Your task to perform on an android device: turn on javascript in the chrome app Image 0: 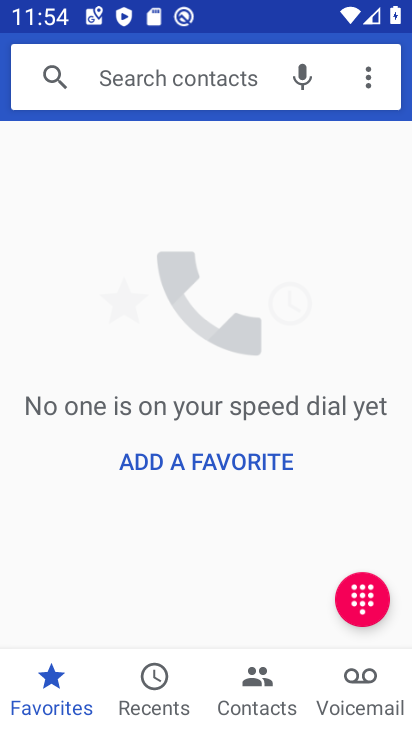
Step 0: press home button
Your task to perform on an android device: turn on javascript in the chrome app Image 1: 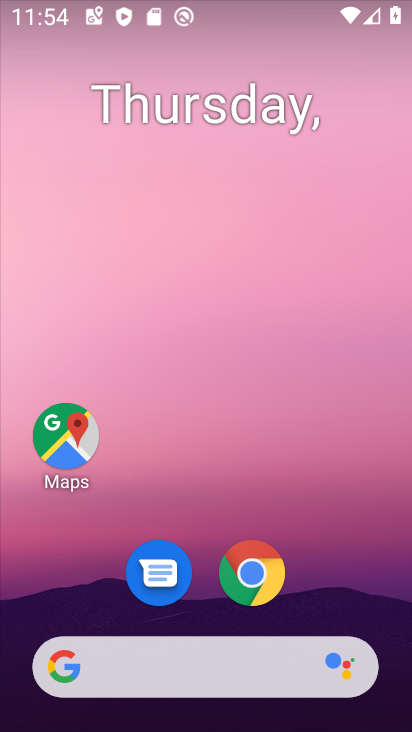
Step 1: click (258, 569)
Your task to perform on an android device: turn on javascript in the chrome app Image 2: 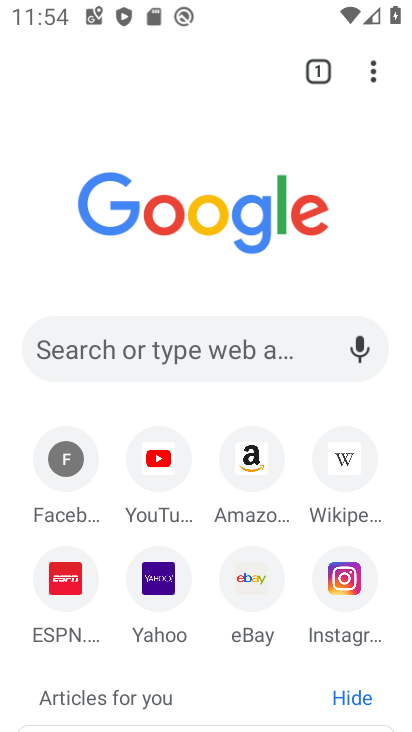
Step 2: click (360, 70)
Your task to perform on an android device: turn on javascript in the chrome app Image 3: 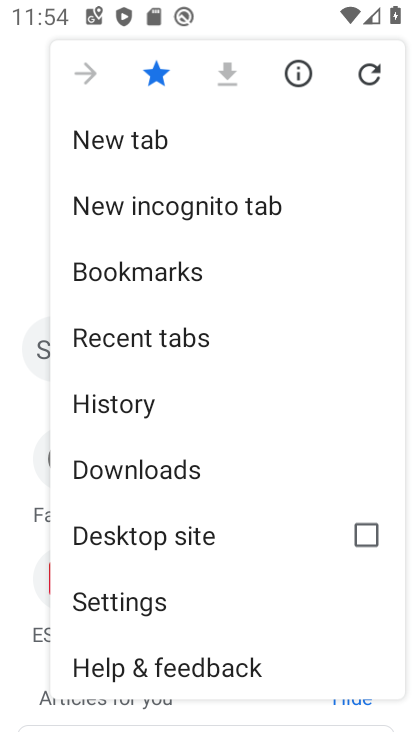
Step 3: click (198, 616)
Your task to perform on an android device: turn on javascript in the chrome app Image 4: 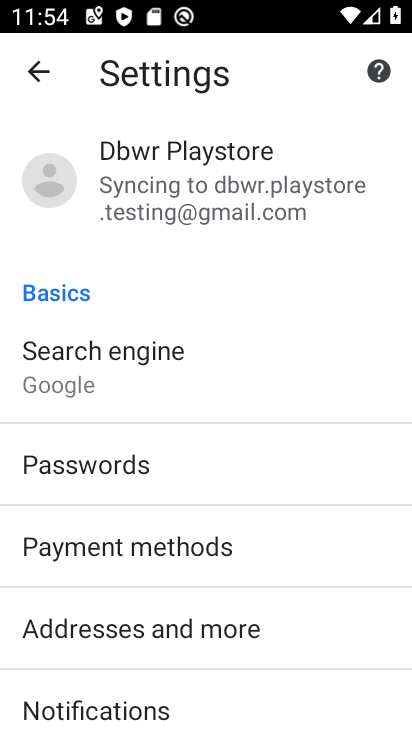
Step 4: drag from (165, 638) to (179, 117)
Your task to perform on an android device: turn on javascript in the chrome app Image 5: 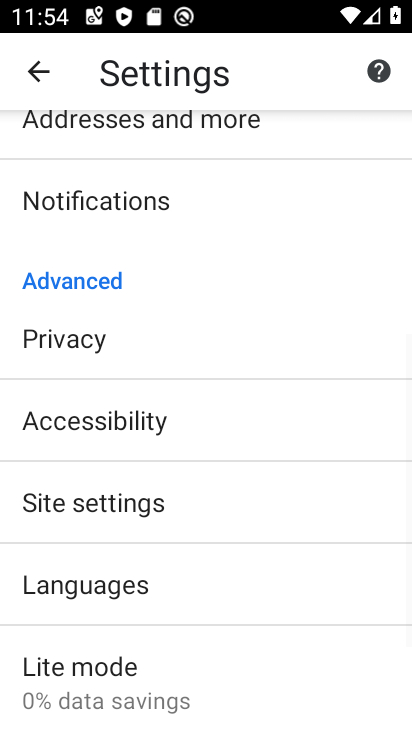
Step 5: click (116, 485)
Your task to perform on an android device: turn on javascript in the chrome app Image 6: 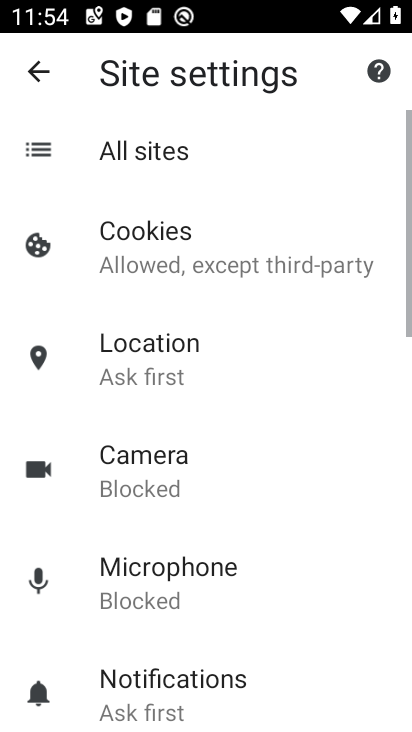
Step 6: drag from (233, 625) to (238, 252)
Your task to perform on an android device: turn on javascript in the chrome app Image 7: 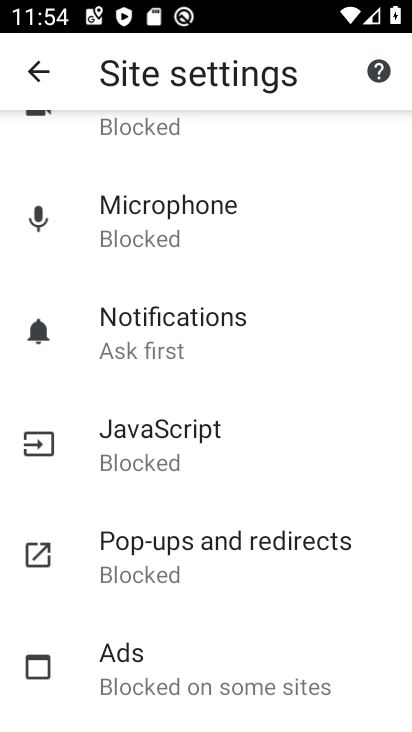
Step 7: click (188, 446)
Your task to perform on an android device: turn on javascript in the chrome app Image 8: 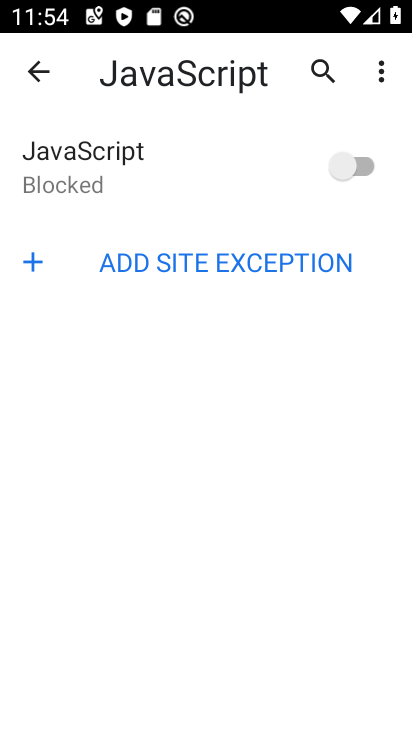
Step 8: click (362, 155)
Your task to perform on an android device: turn on javascript in the chrome app Image 9: 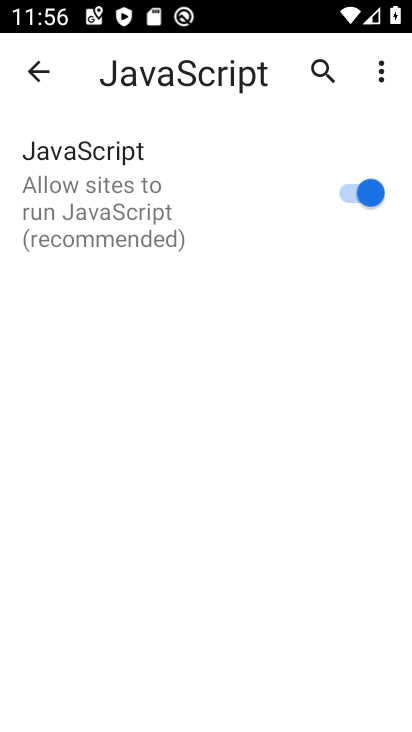
Step 9: task complete